Your task to perform on an android device: find photos in the google photos app Image 0: 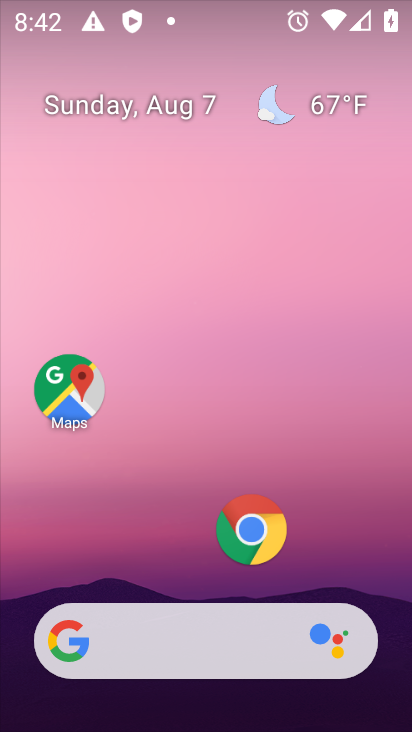
Step 0: drag from (182, 561) to (194, 160)
Your task to perform on an android device: find photos in the google photos app Image 1: 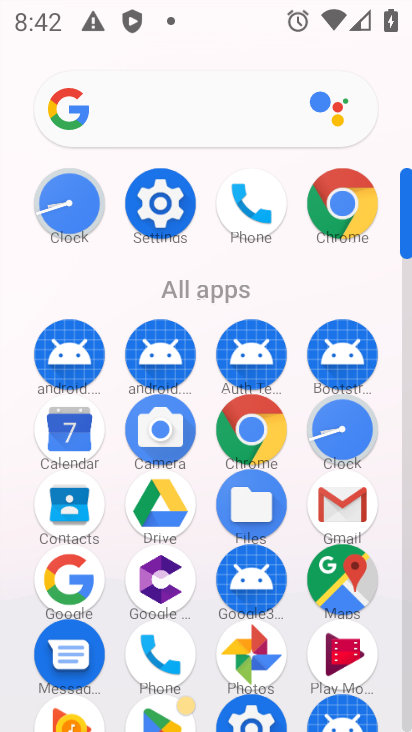
Step 1: click (237, 649)
Your task to perform on an android device: find photos in the google photos app Image 2: 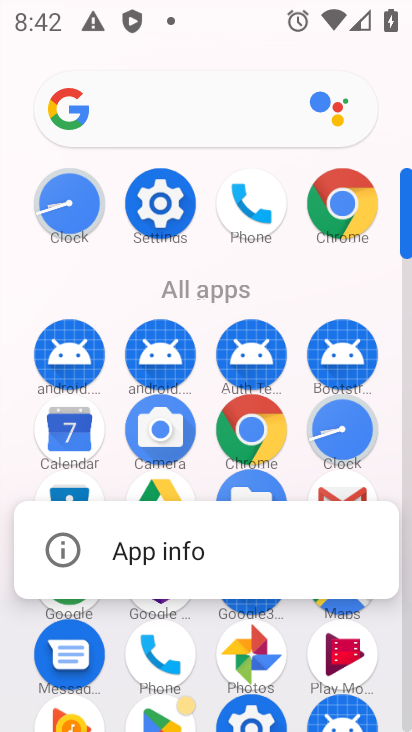
Step 2: click (236, 670)
Your task to perform on an android device: find photos in the google photos app Image 3: 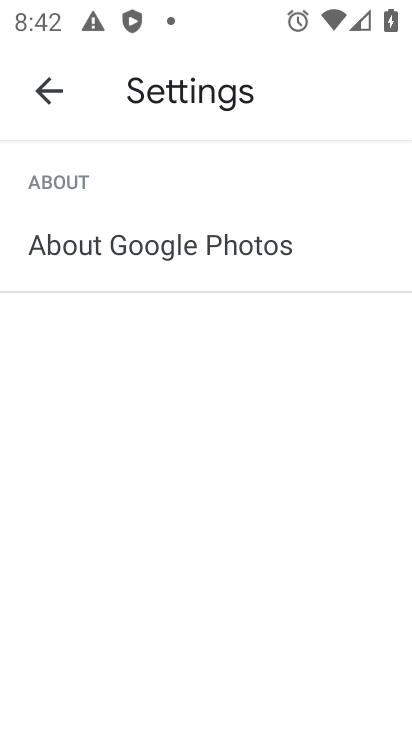
Step 3: click (41, 80)
Your task to perform on an android device: find photos in the google photos app Image 4: 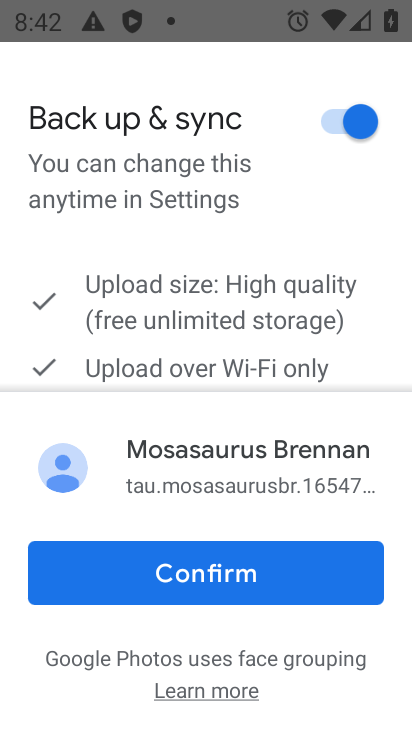
Step 4: click (223, 589)
Your task to perform on an android device: find photos in the google photos app Image 5: 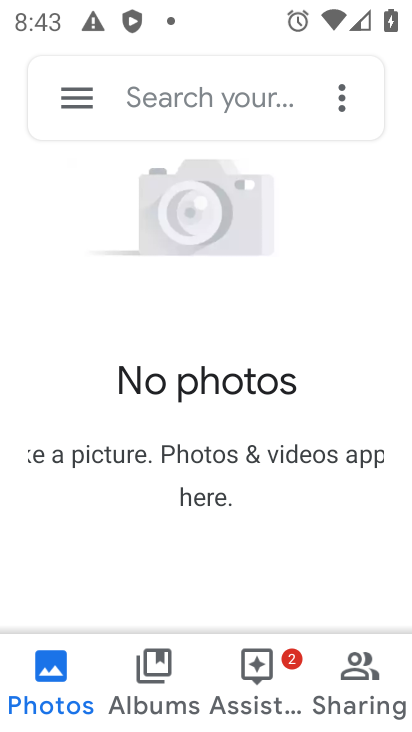
Step 5: task complete